Your task to perform on an android device: make emails show in primary in the gmail app Image 0: 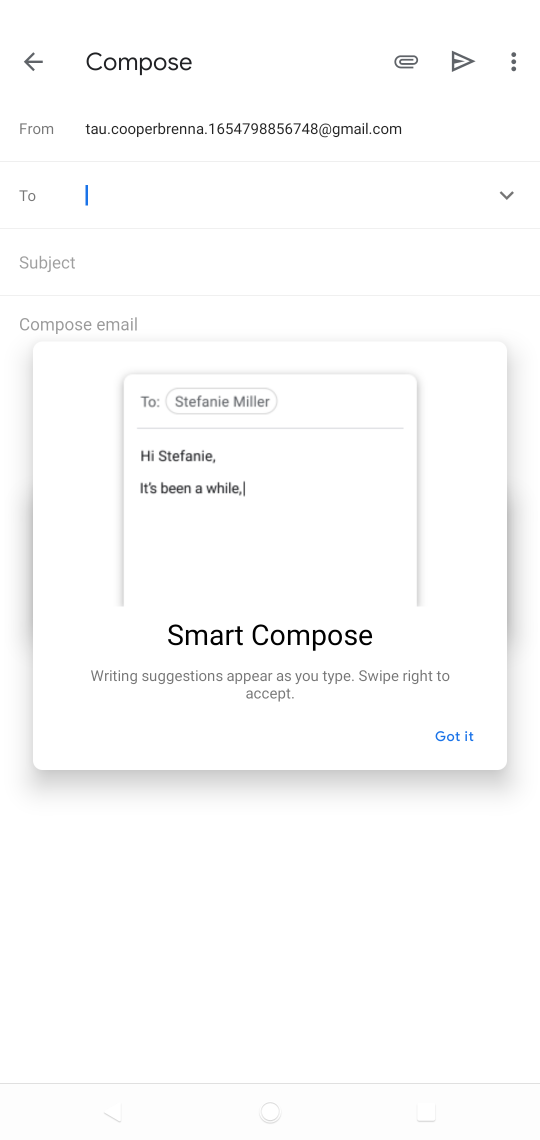
Step 0: press home button
Your task to perform on an android device: make emails show in primary in the gmail app Image 1: 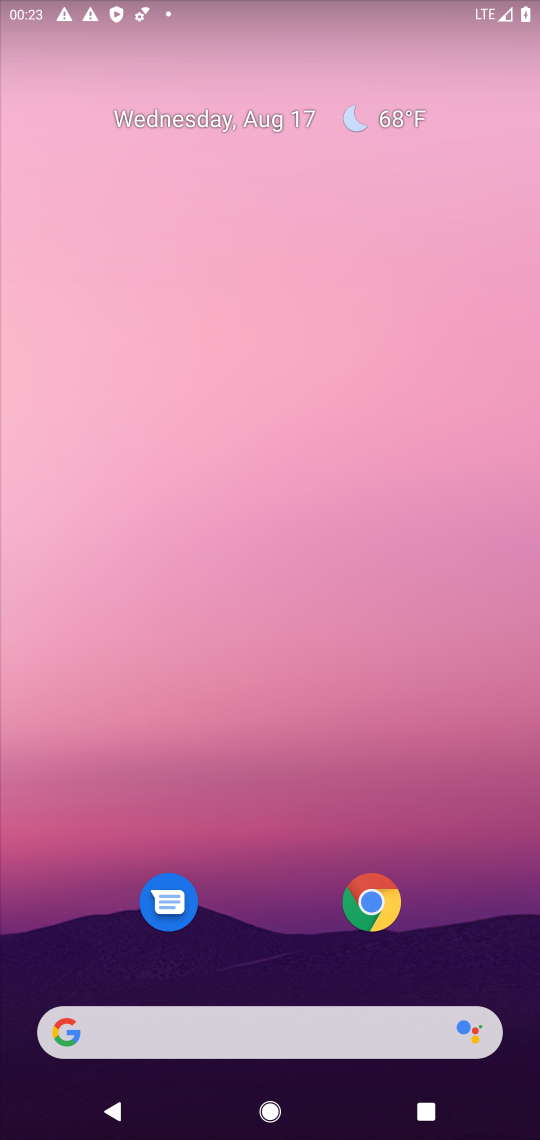
Step 1: drag from (300, 950) to (330, 156)
Your task to perform on an android device: make emails show in primary in the gmail app Image 2: 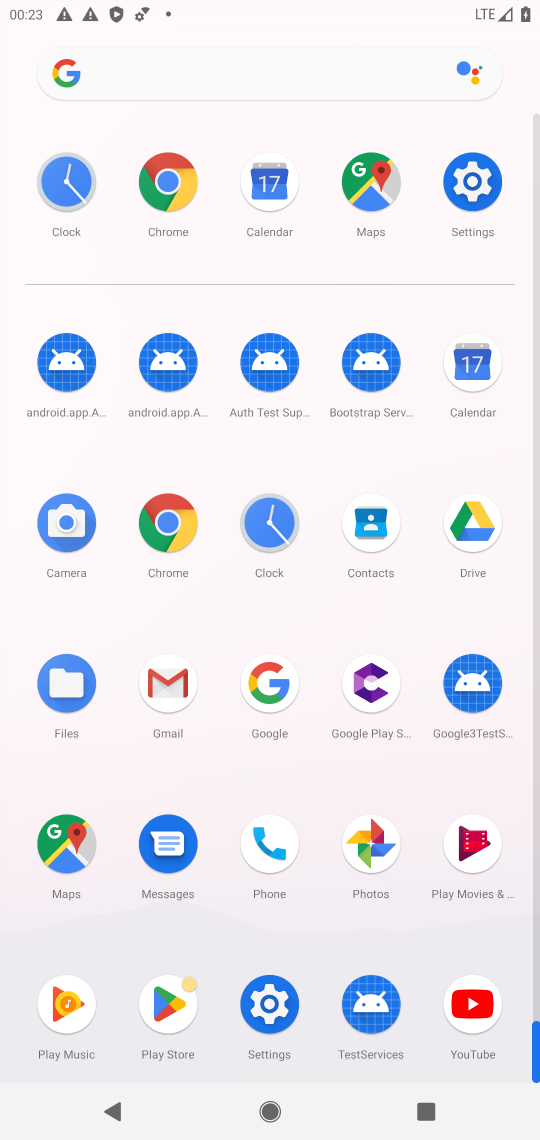
Step 2: click (181, 712)
Your task to perform on an android device: make emails show in primary in the gmail app Image 3: 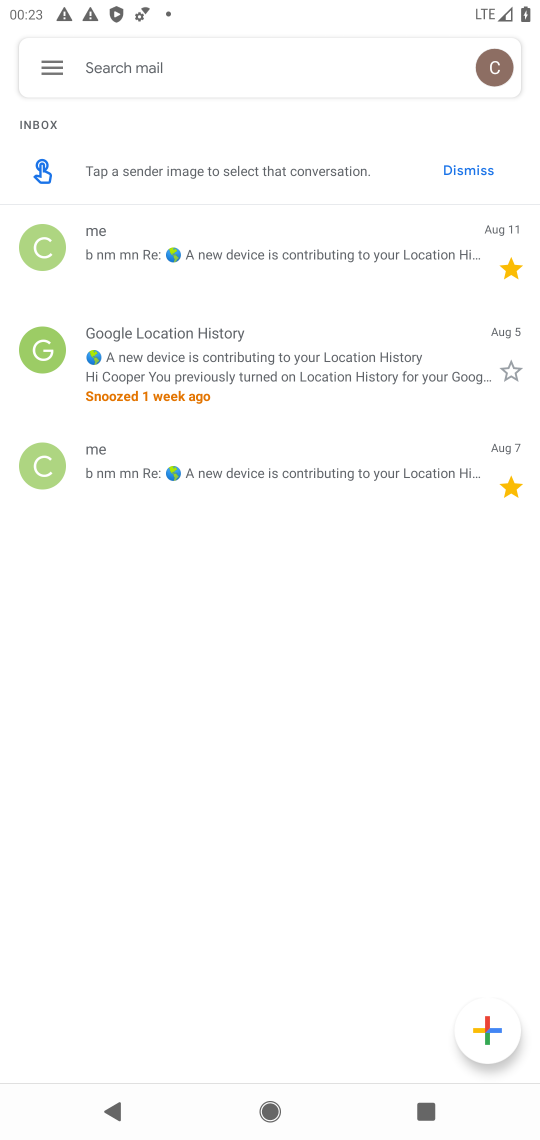
Step 3: click (49, 66)
Your task to perform on an android device: make emails show in primary in the gmail app Image 4: 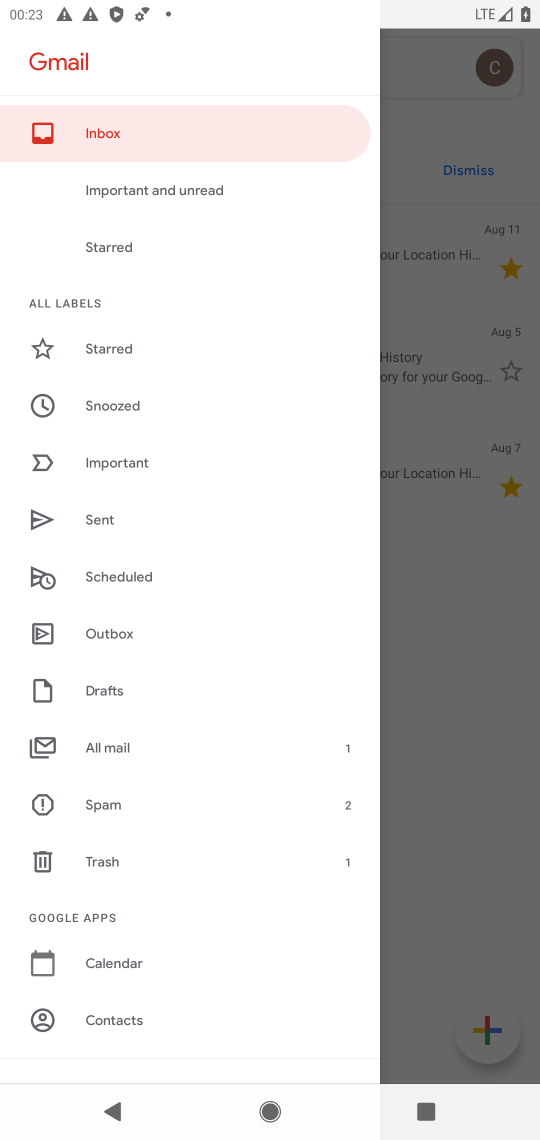
Step 4: drag from (148, 972) to (151, 611)
Your task to perform on an android device: make emails show in primary in the gmail app Image 5: 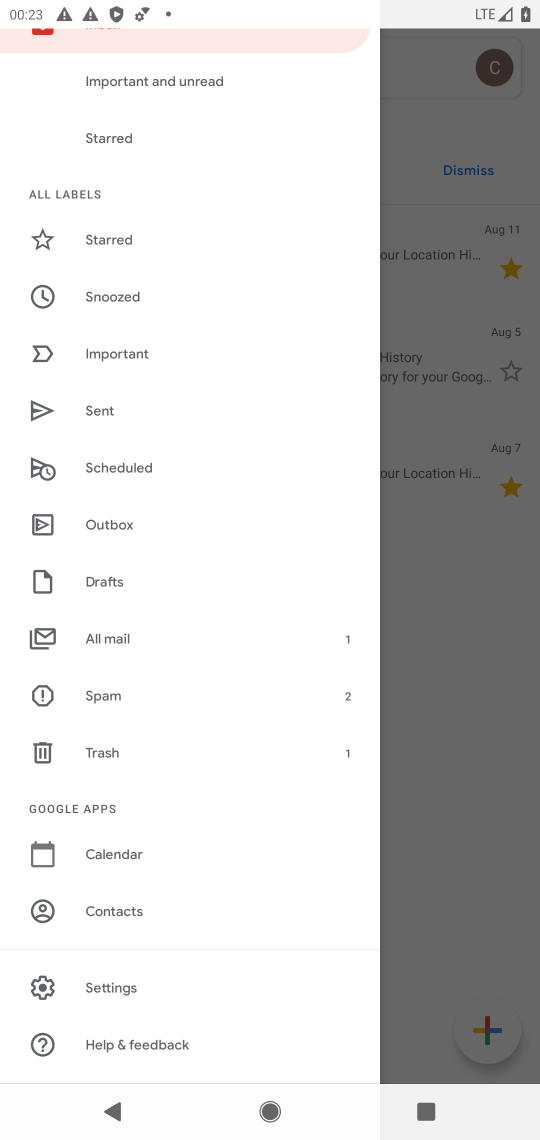
Step 5: click (107, 983)
Your task to perform on an android device: make emails show in primary in the gmail app Image 6: 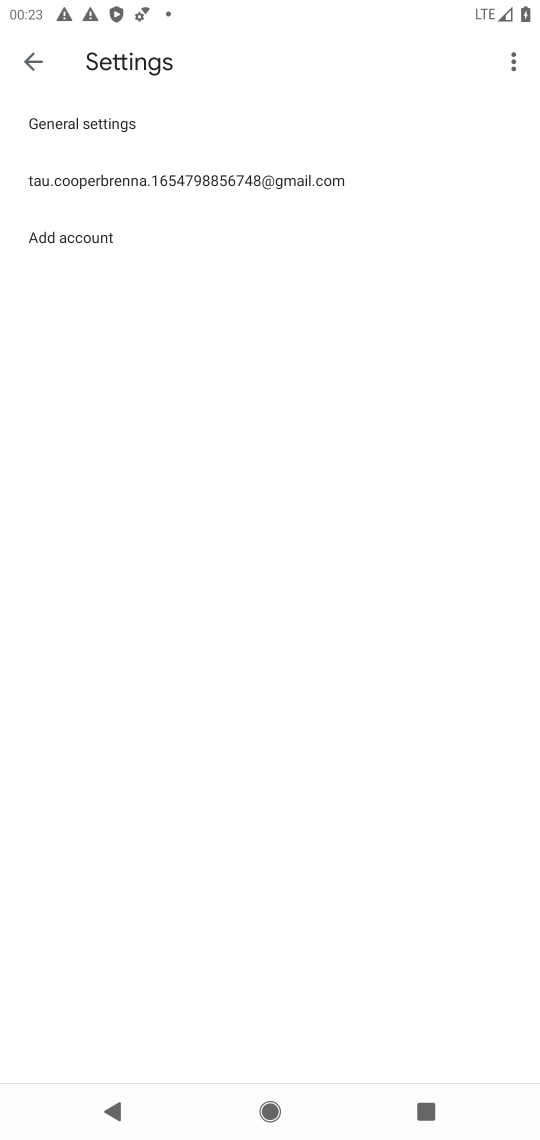
Step 6: click (269, 174)
Your task to perform on an android device: make emails show in primary in the gmail app Image 7: 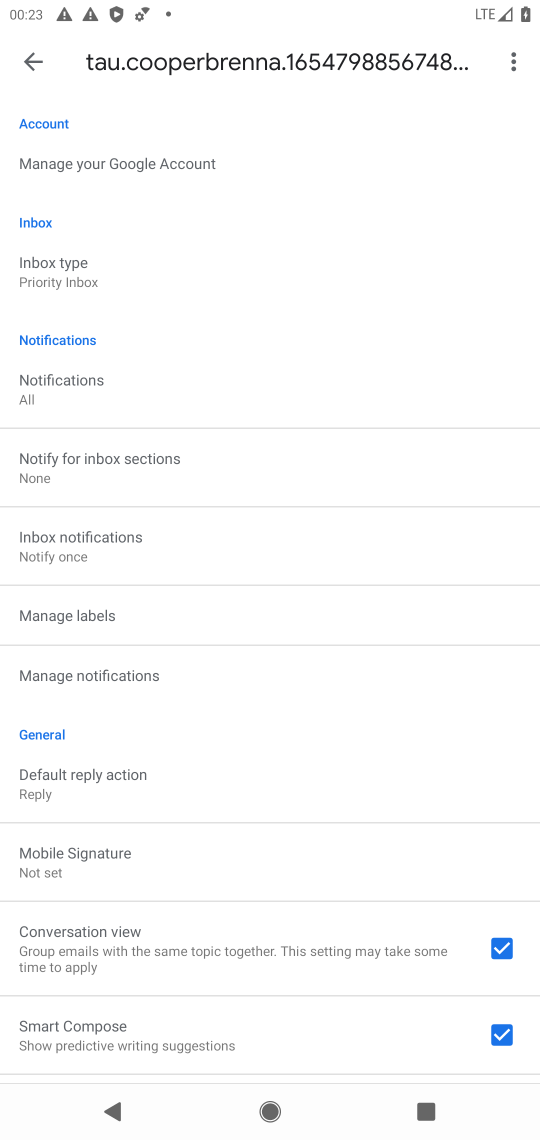
Step 7: click (95, 288)
Your task to perform on an android device: make emails show in primary in the gmail app Image 8: 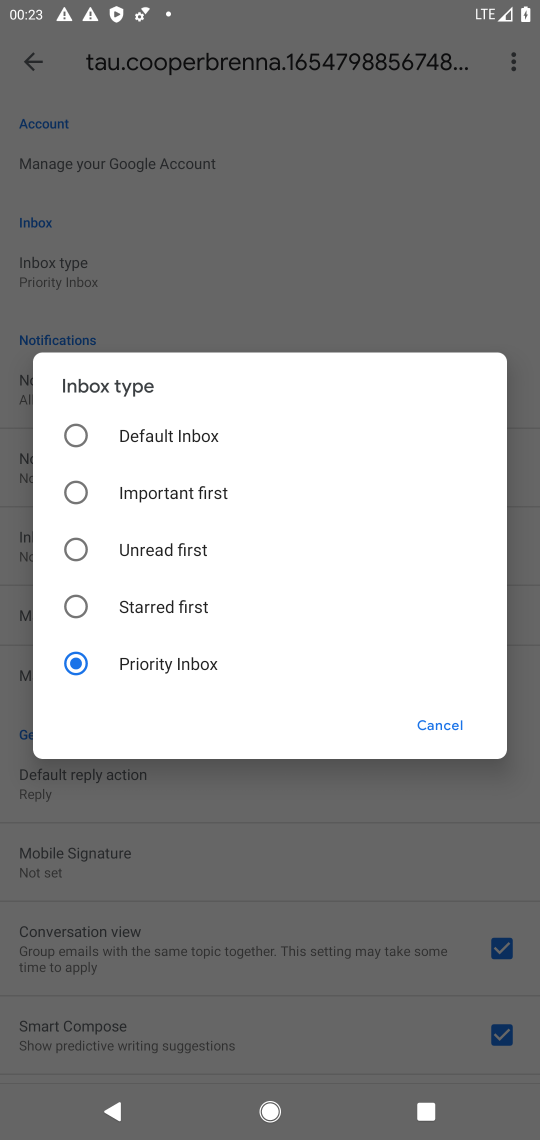
Step 8: click (191, 426)
Your task to perform on an android device: make emails show in primary in the gmail app Image 9: 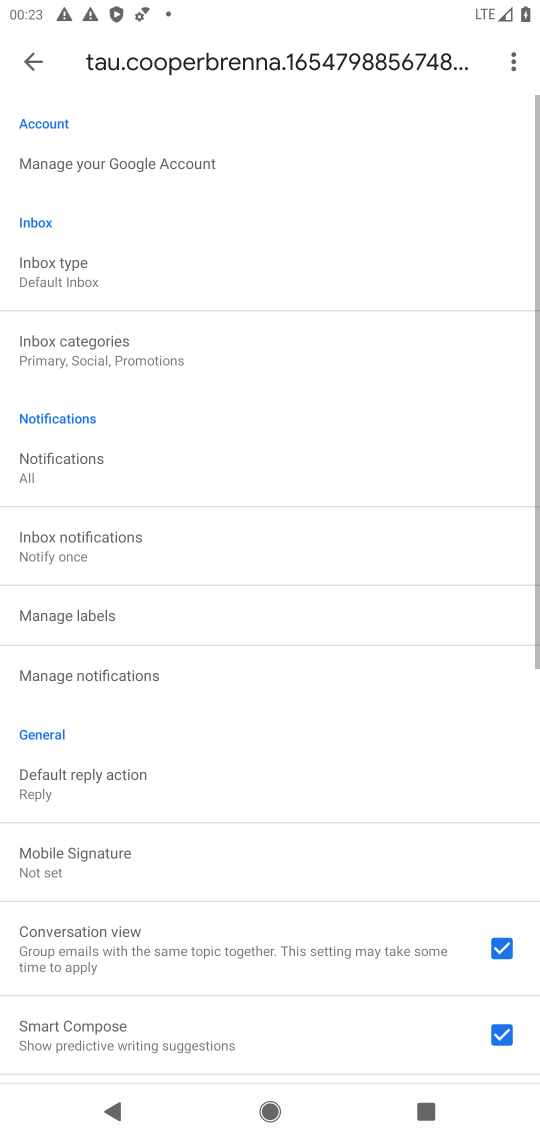
Step 9: click (239, 347)
Your task to perform on an android device: make emails show in primary in the gmail app Image 10: 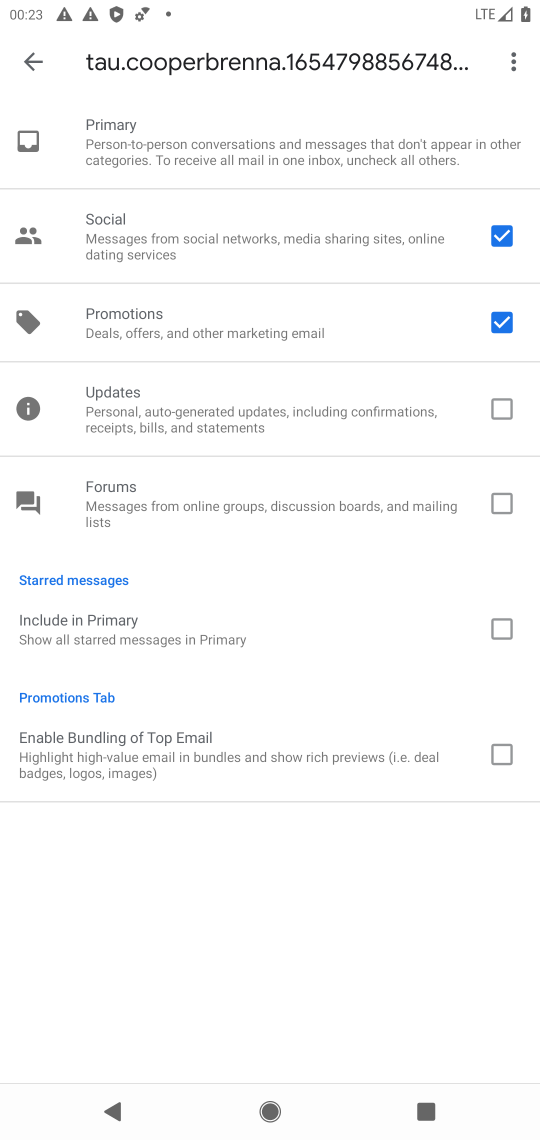
Step 10: click (434, 225)
Your task to perform on an android device: make emails show in primary in the gmail app Image 11: 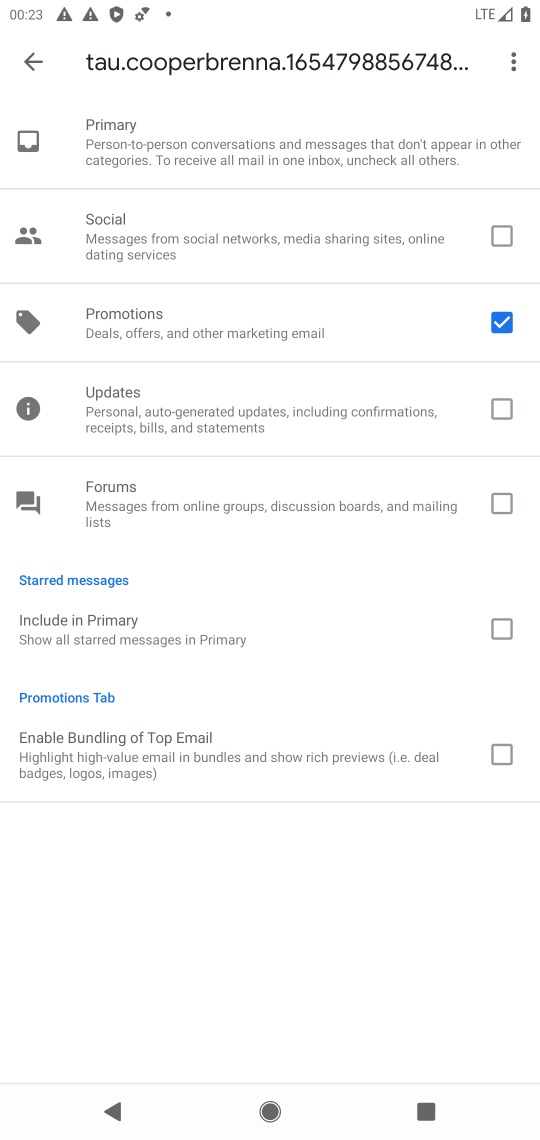
Step 11: click (453, 315)
Your task to perform on an android device: make emails show in primary in the gmail app Image 12: 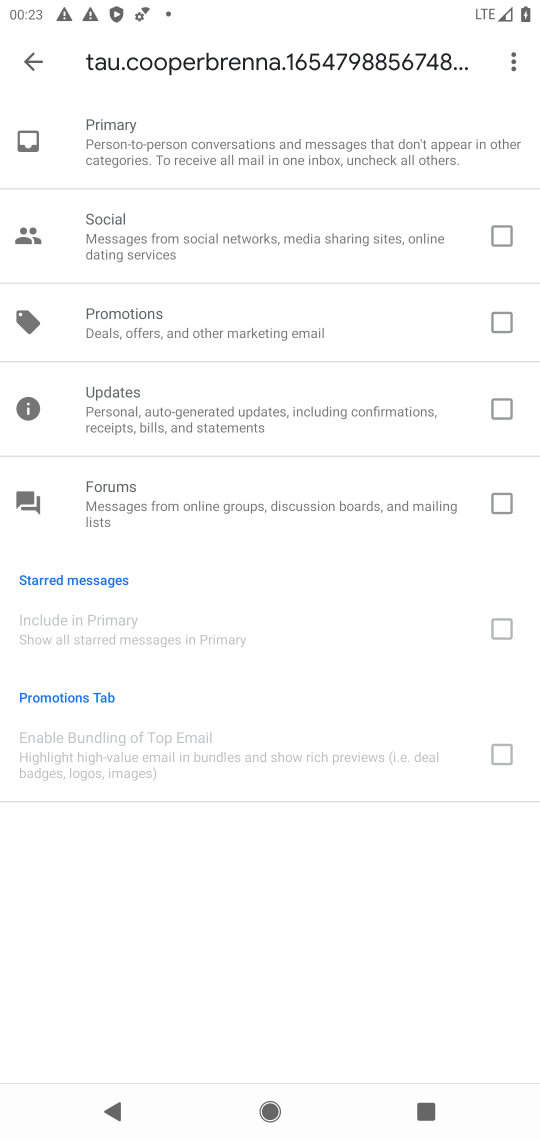
Step 12: task complete